Your task to perform on an android device: turn off translation in the chrome app Image 0: 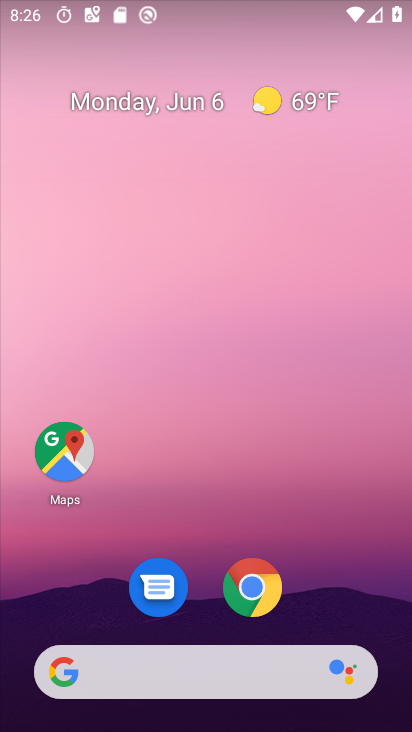
Step 0: drag from (365, 569) to (340, 204)
Your task to perform on an android device: turn off translation in the chrome app Image 1: 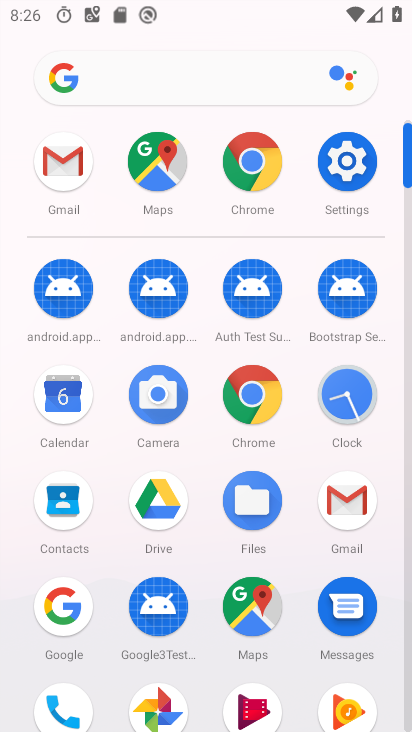
Step 1: click (256, 412)
Your task to perform on an android device: turn off translation in the chrome app Image 2: 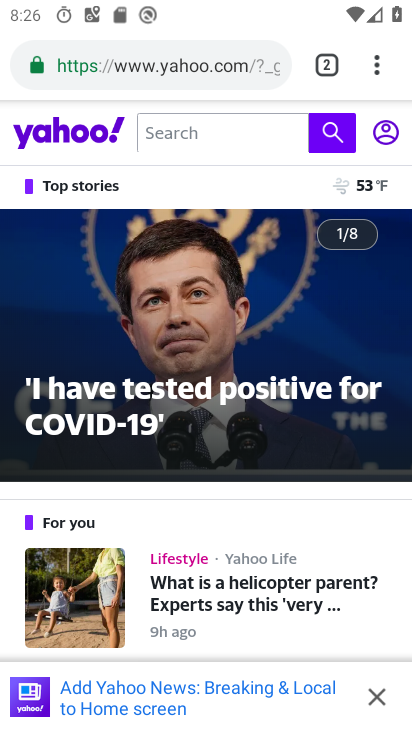
Step 2: drag from (378, 70) to (187, 640)
Your task to perform on an android device: turn off translation in the chrome app Image 3: 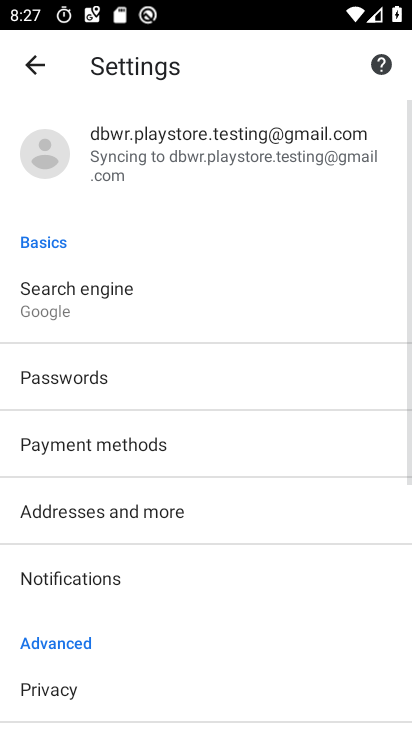
Step 3: drag from (210, 661) to (277, 322)
Your task to perform on an android device: turn off translation in the chrome app Image 4: 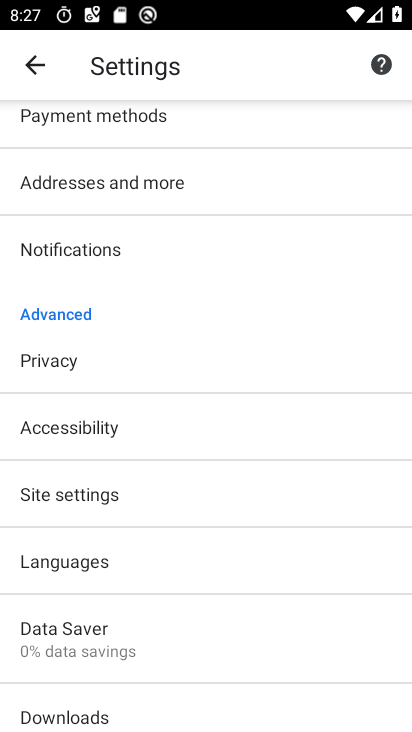
Step 4: drag from (257, 685) to (266, 443)
Your task to perform on an android device: turn off translation in the chrome app Image 5: 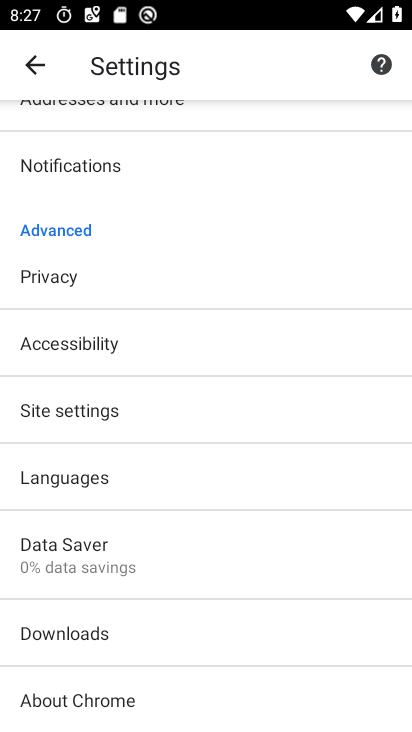
Step 5: drag from (251, 664) to (246, 361)
Your task to perform on an android device: turn off translation in the chrome app Image 6: 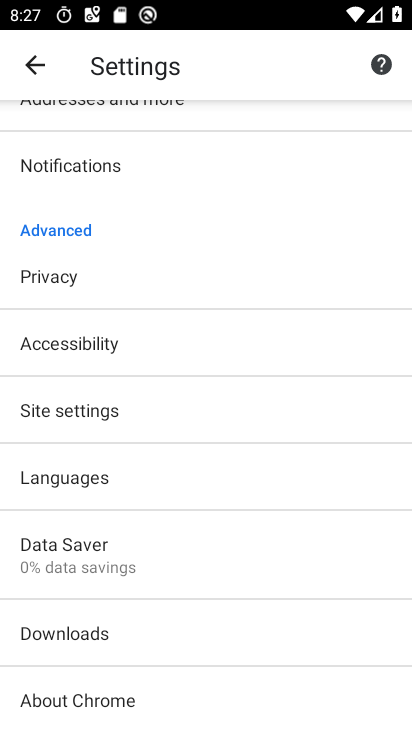
Step 6: drag from (231, 644) to (250, 329)
Your task to perform on an android device: turn off translation in the chrome app Image 7: 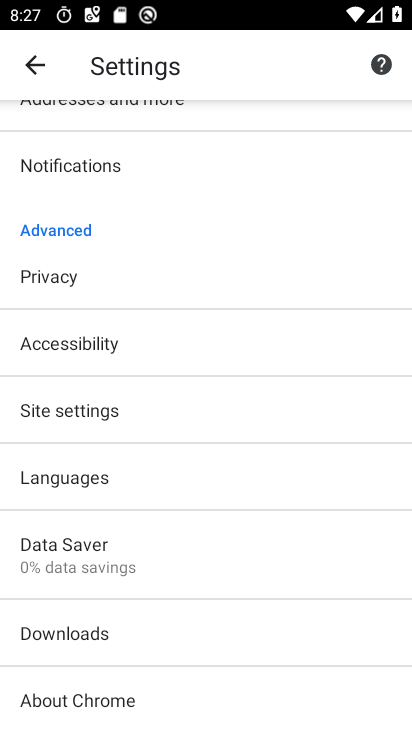
Step 7: drag from (226, 347) to (236, 649)
Your task to perform on an android device: turn off translation in the chrome app Image 8: 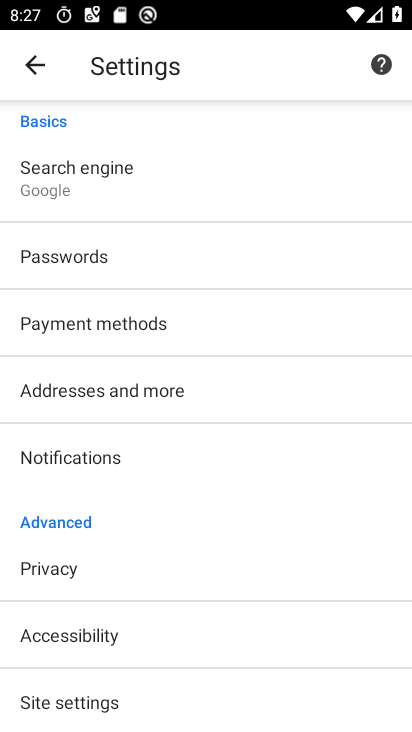
Step 8: drag from (235, 326) to (250, 647)
Your task to perform on an android device: turn off translation in the chrome app Image 9: 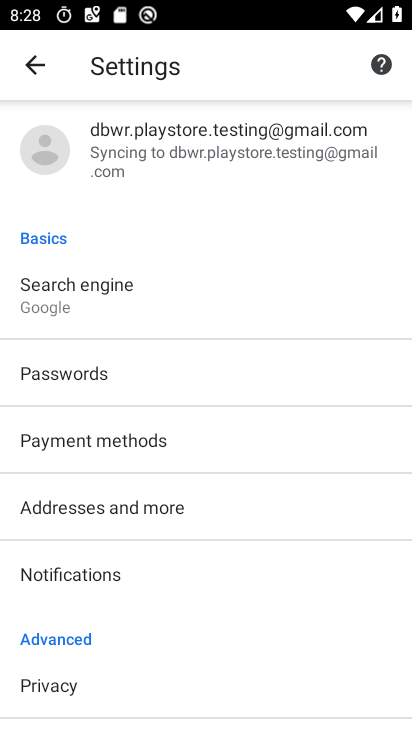
Step 9: drag from (251, 603) to (244, 265)
Your task to perform on an android device: turn off translation in the chrome app Image 10: 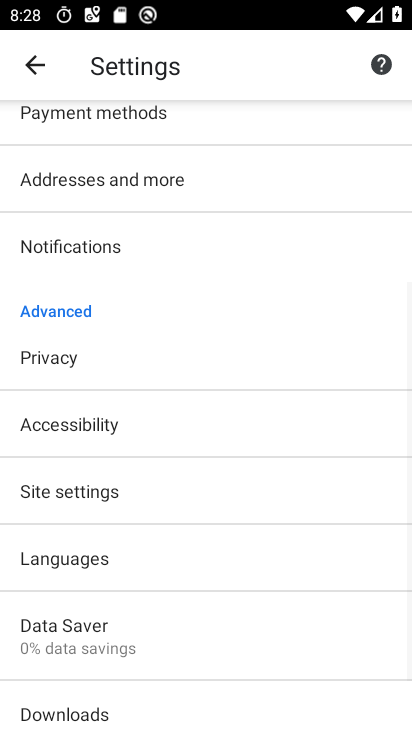
Step 10: drag from (286, 602) to (265, 300)
Your task to perform on an android device: turn off translation in the chrome app Image 11: 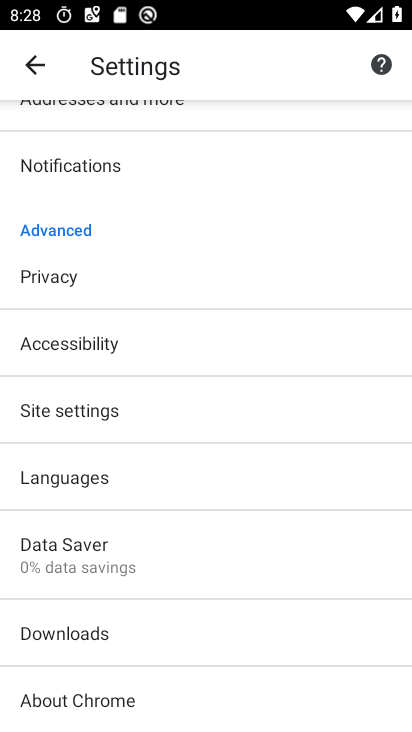
Step 11: click (194, 487)
Your task to perform on an android device: turn off translation in the chrome app Image 12: 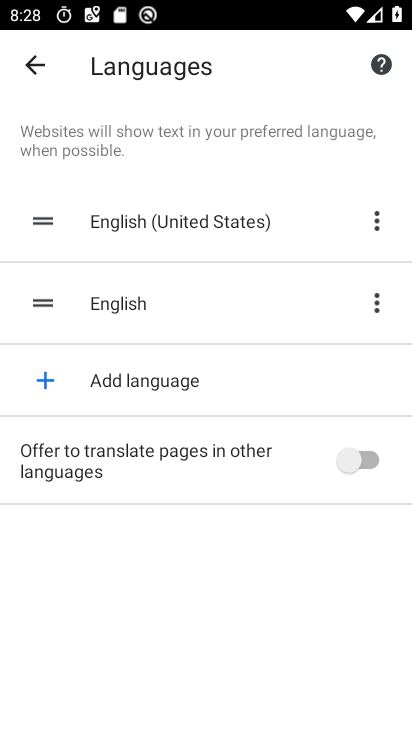
Step 12: task complete